Your task to perform on an android device: turn on translation in the chrome app Image 0: 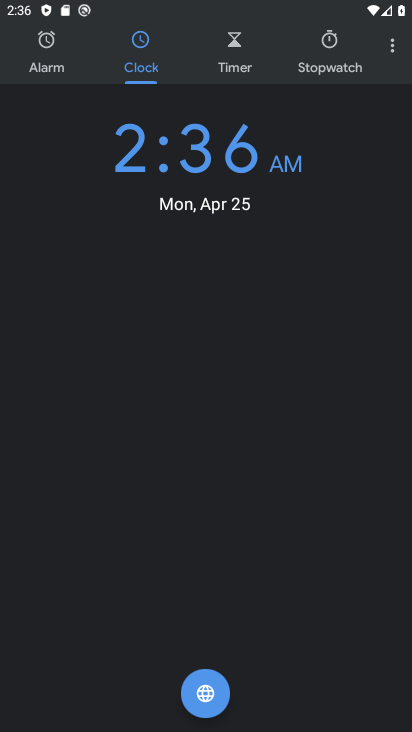
Step 0: press home button
Your task to perform on an android device: turn on translation in the chrome app Image 1: 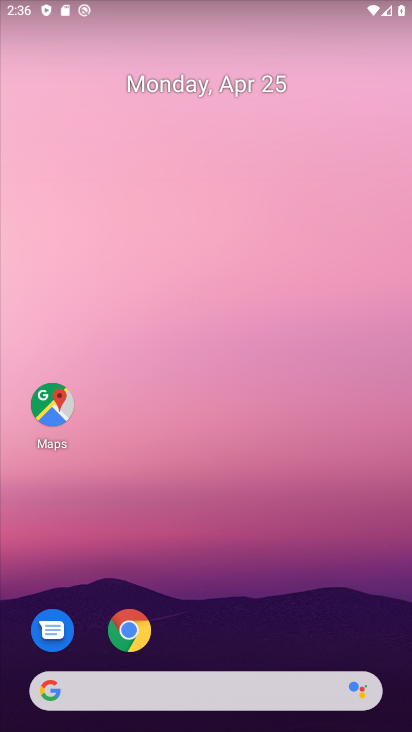
Step 1: click (128, 622)
Your task to perform on an android device: turn on translation in the chrome app Image 2: 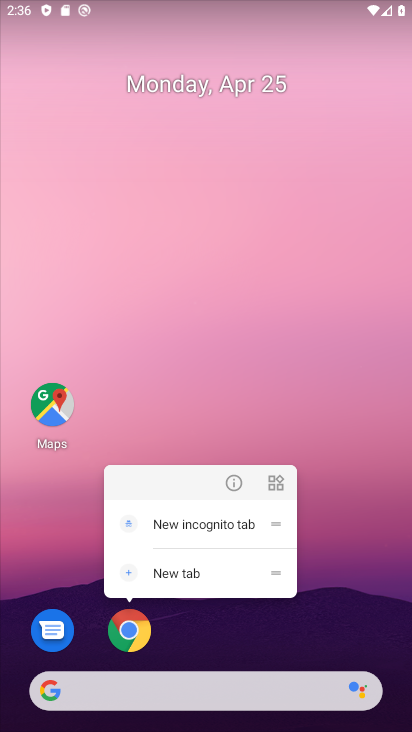
Step 2: click (128, 622)
Your task to perform on an android device: turn on translation in the chrome app Image 3: 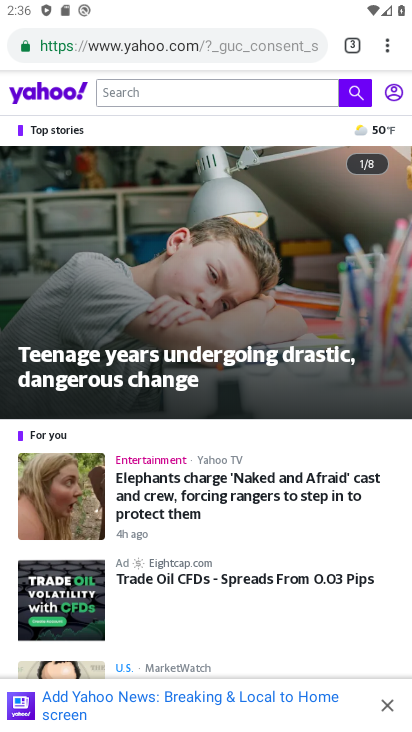
Step 3: drag from (383, 42) to (247, 563)
Your task to perform on an android device: turn on translation in the chrome app Image 4: 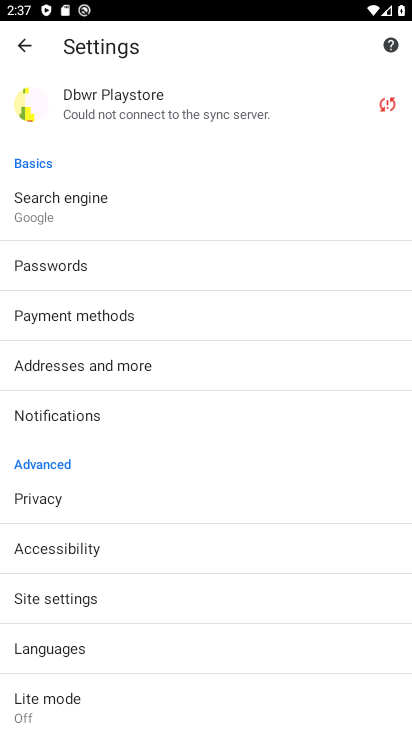
Step 4: click (58, 654)
Your task to perform on an android device: turn on translation in the chrome app Image 5: 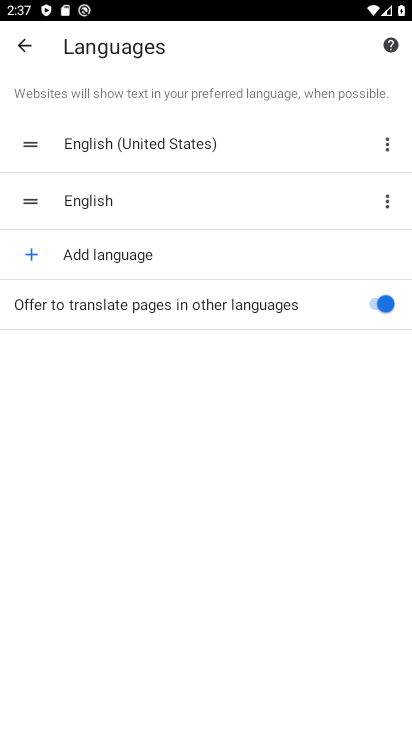
Step 5: task complete